Your task to perform on an android device: star an email in the gmail app Image 0: 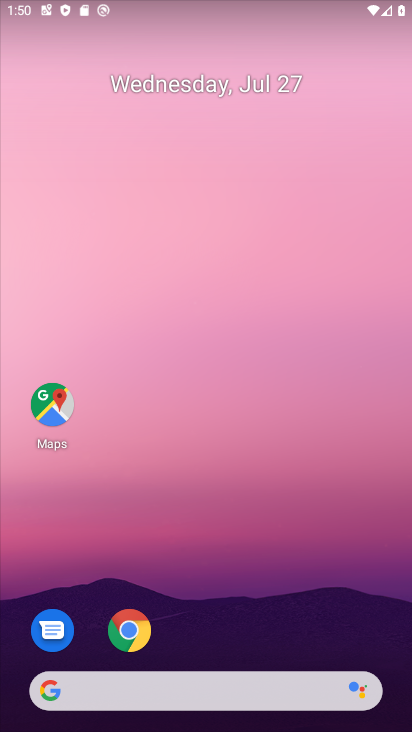
Step 0: drag from (399, 688) to (354, 82)
Your task to perform on an android device: star an email in the gmail app Image 1: 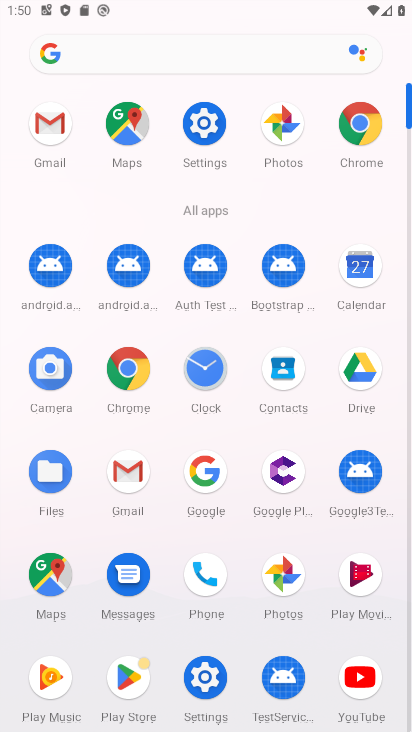
Step 1: click (120, 471)
Your task to perform on an android device: star an email in the gmail app Image 2: 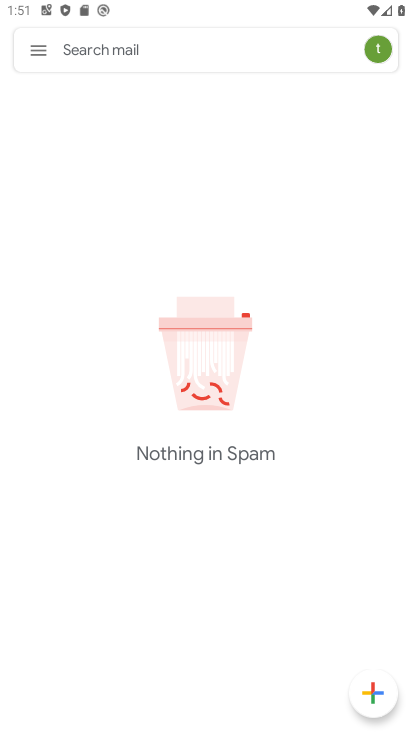
Step 2: task complete